Your task to perform on an android device: open device folders in google photos Image 0: 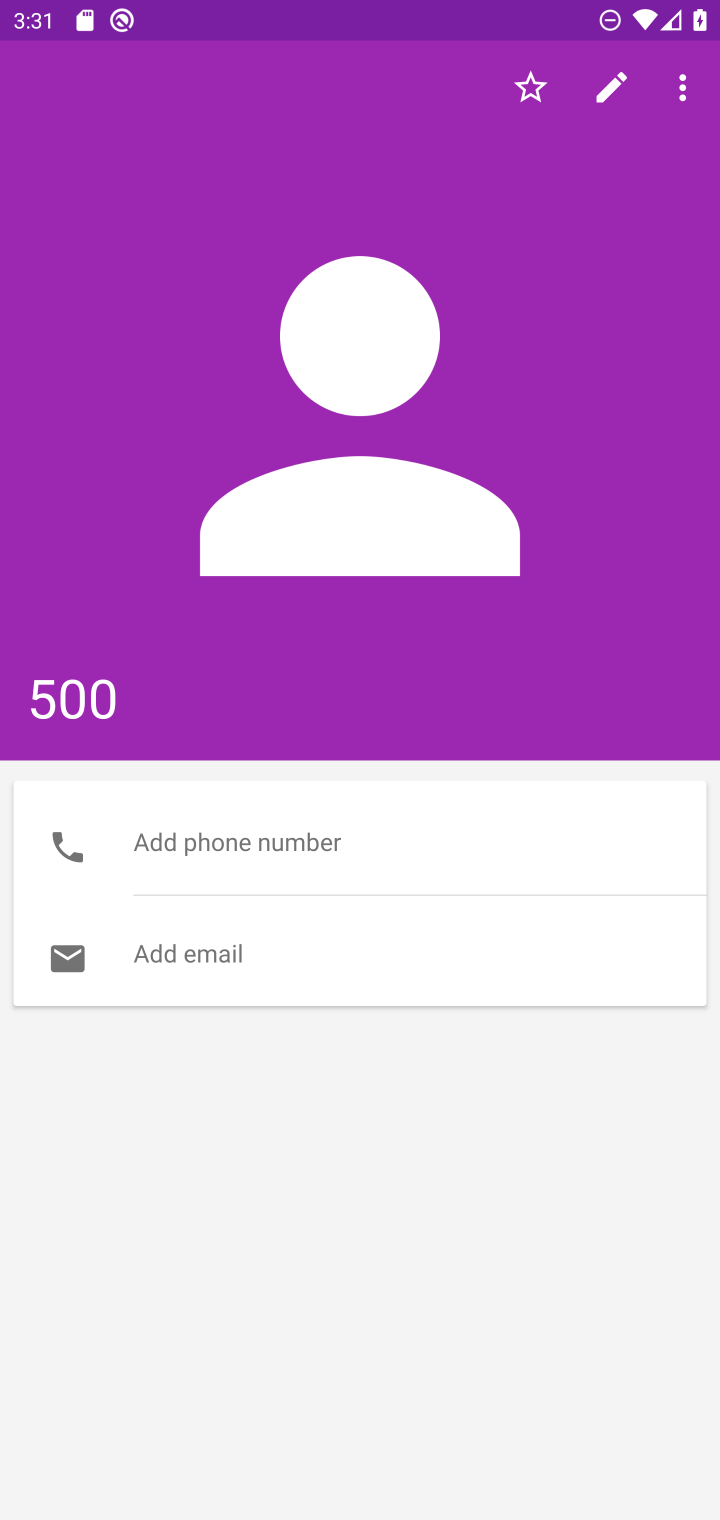
Step 0: press home button
Your task to perform on an android device: open device folders in google photos Image 1: 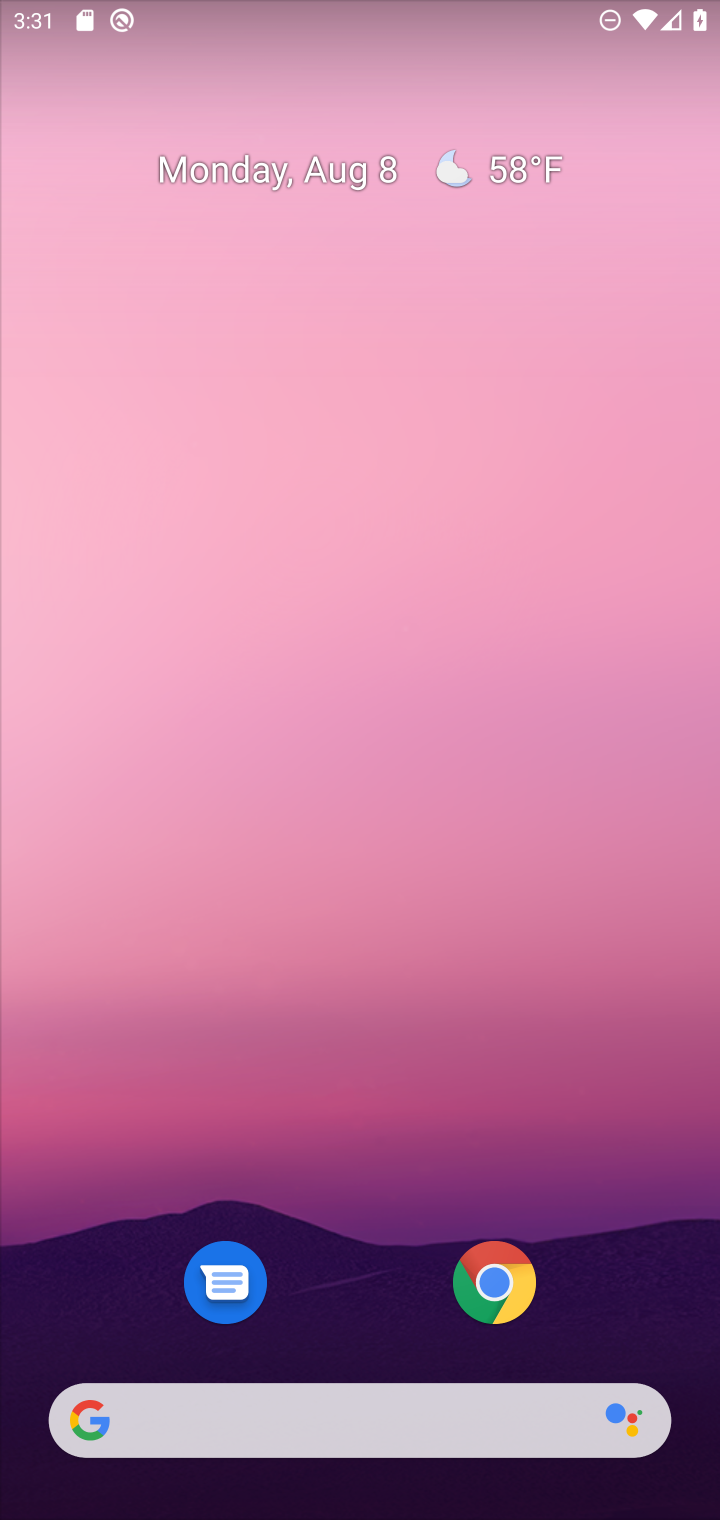
Step 1: click (477, 416)
Your task to perform on an android device: open device folders in google photos Image 2: 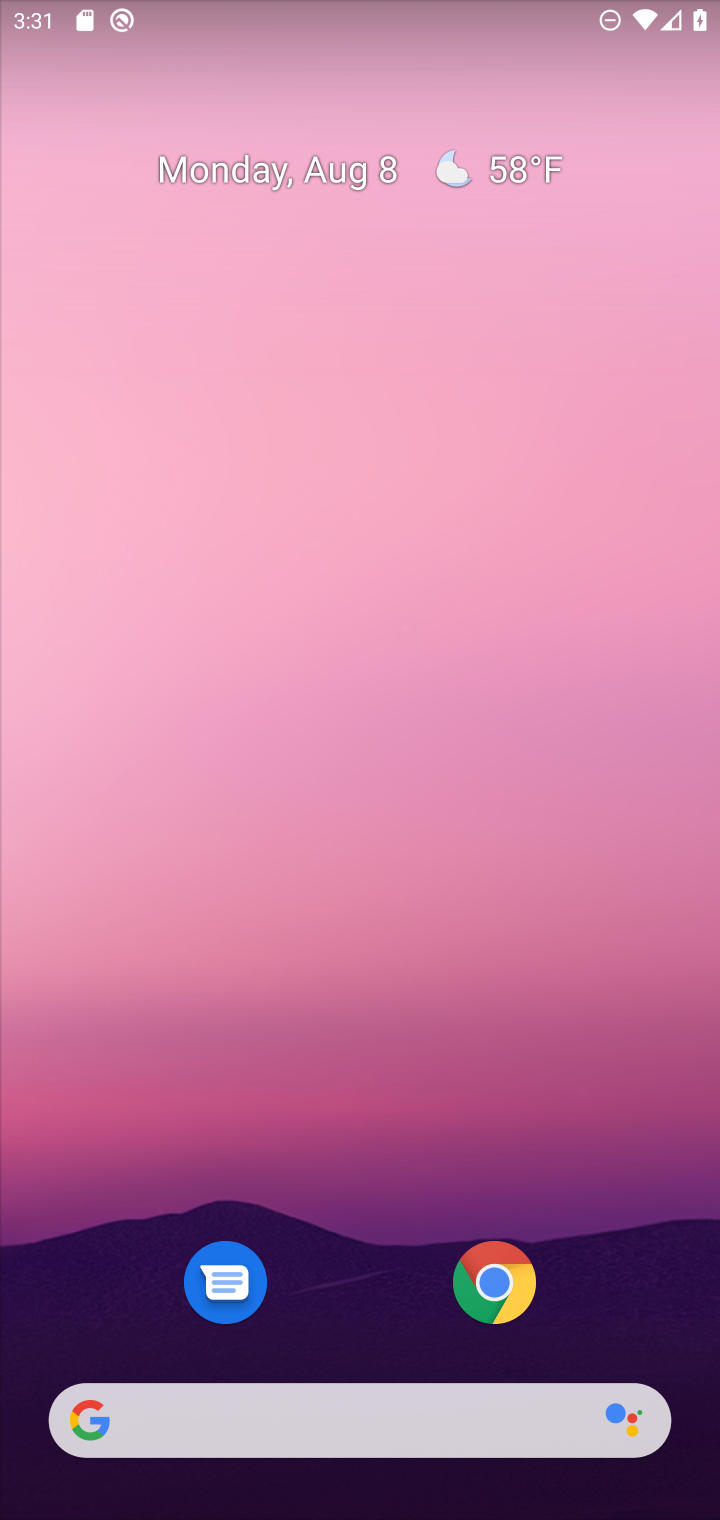
Step 2: drag from (331, 1065) to (460, 138)
Your task to perform on an android device: open device folders in google photos Image 3: 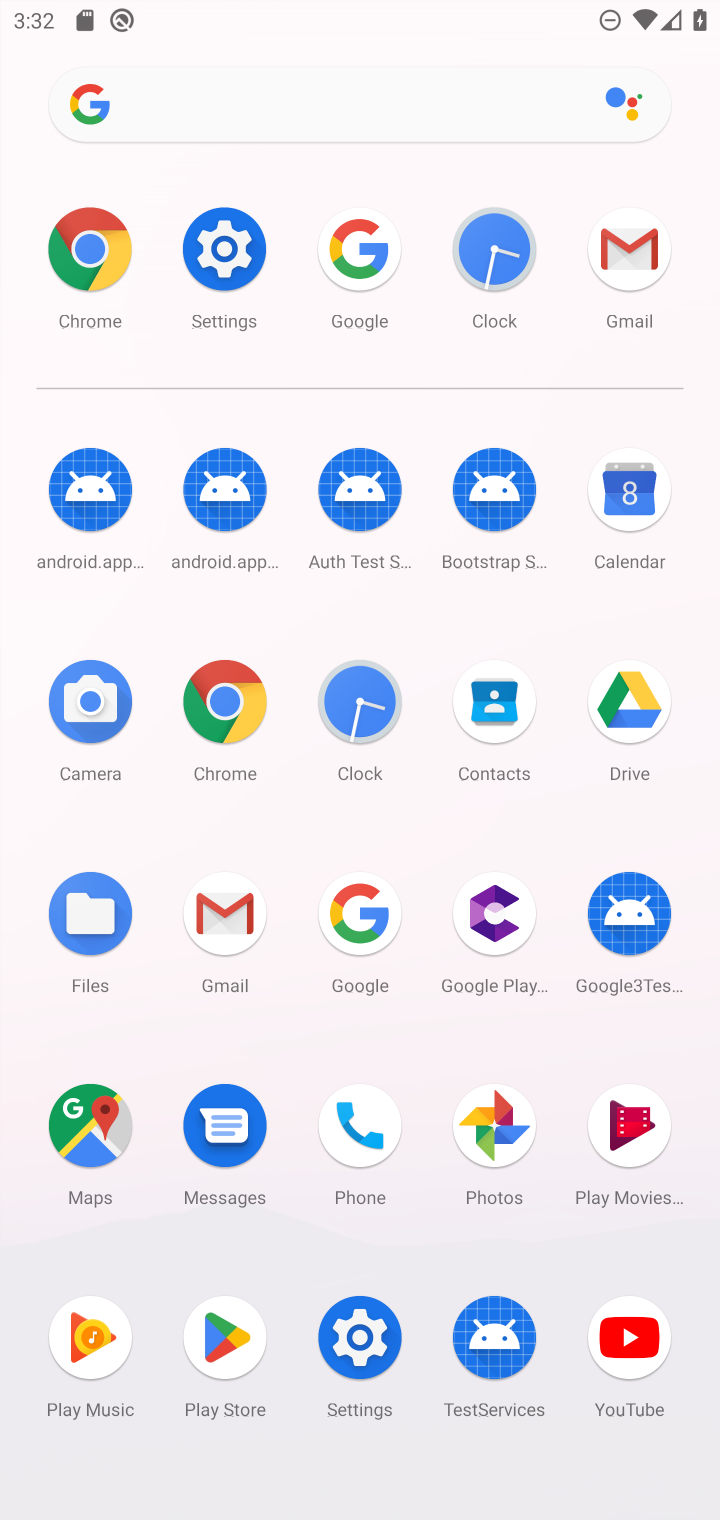
Step 3: click (494, 1113)
Your task to perform on an android device: open device folders in google photos Image 4: 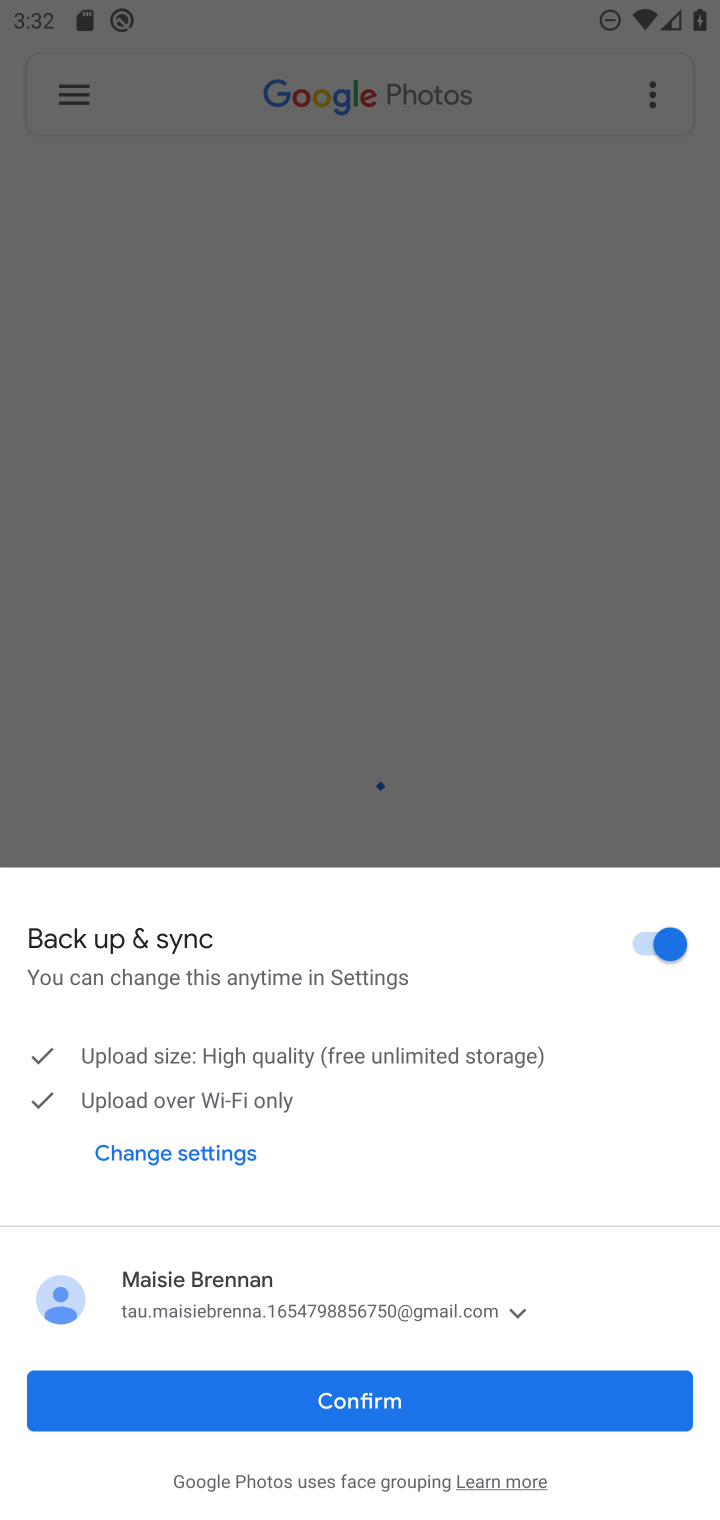
Step 4: click (408, 1391)
Your task to perform on an android device: open device folders in google photos Image 5: 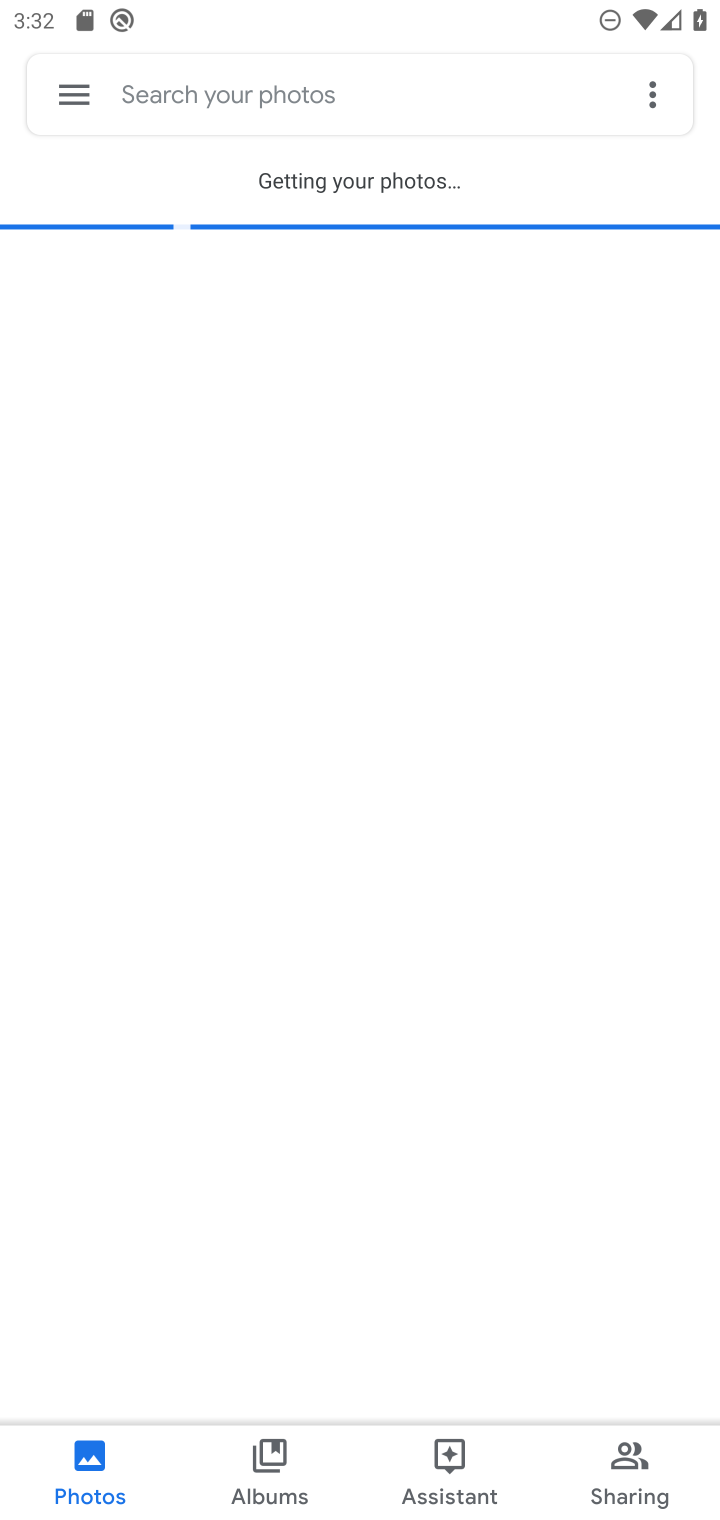
Step 5: click (55, 81)
Your task to perform on an android device: open device folders in google photos Image 6: 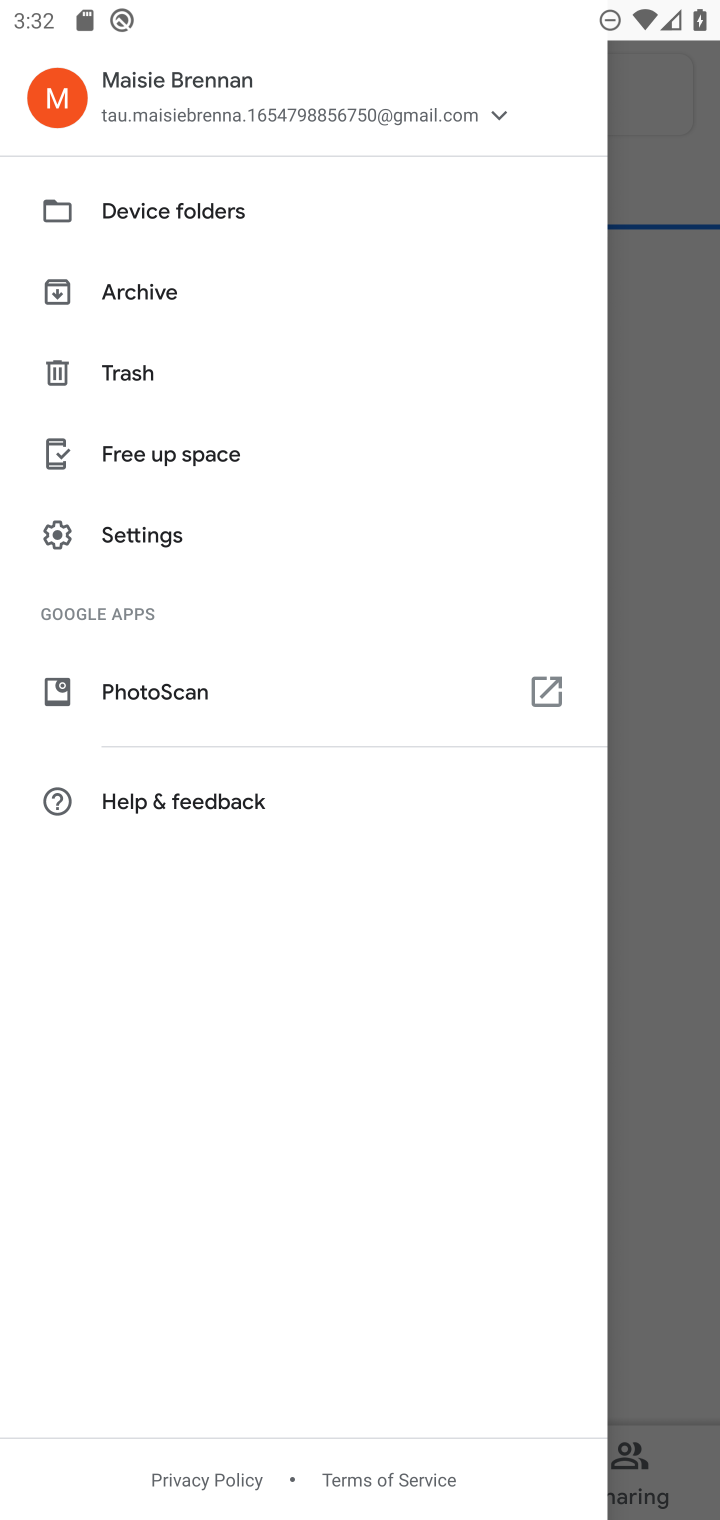
Step 6: click (181, 198)
Your task to perform on an android device: open device folders in google photos Image 7: 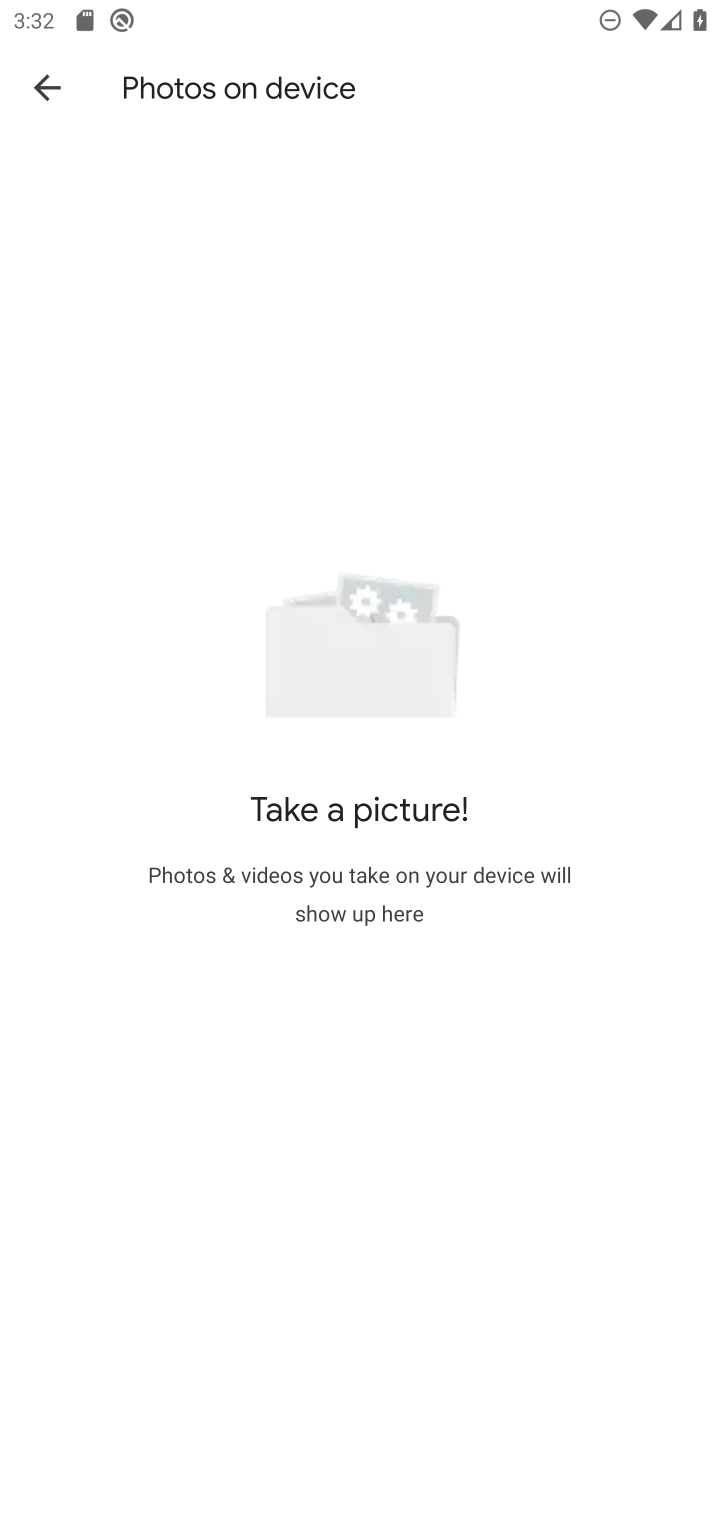
Step 7: task complete